Your task to perform on an android device: allow notifications from all sites in the chrome app Image 0: 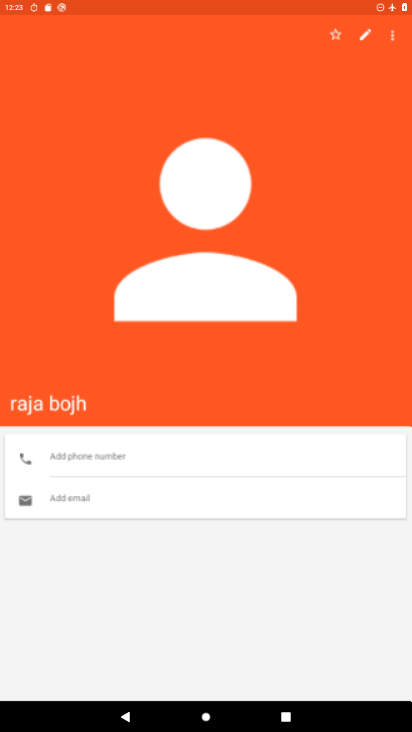
Step 0: drag from (235, 634) to (221, 111)
Your task to perform on an android device: allow notifications from all sites in the chrome app Image 1: 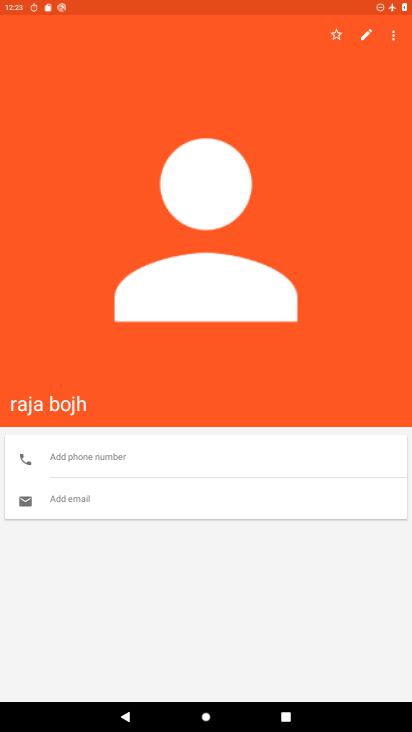
Step 1: press home button
Your task to perform on an android device: allow notifications from all sites in the chrome app Image 2: 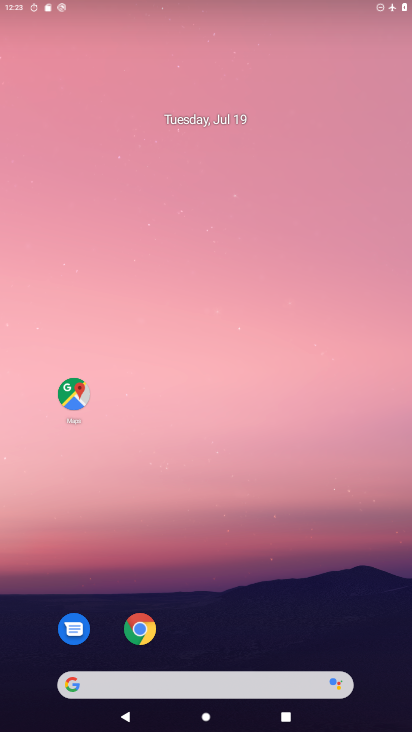
Step 2: drag from (244, 455) to (250, 111)
Your task to perform on an android device: allow notifications from all sites in the chrome app Image 3: 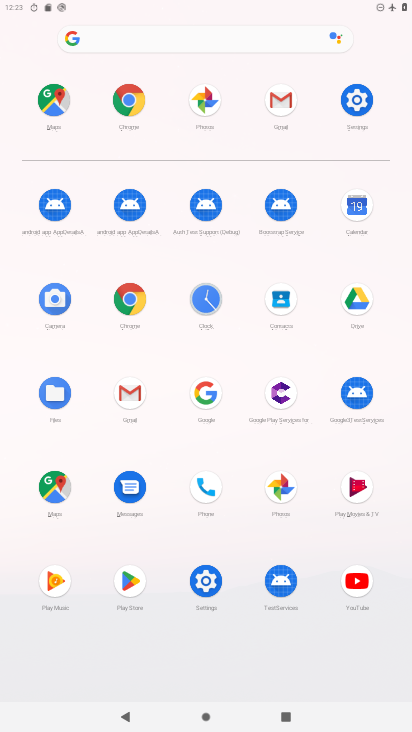
Step 3: click (127, 101)
Your task to perform on an android device: allow notifications from all sites in the chrome app Image 4: 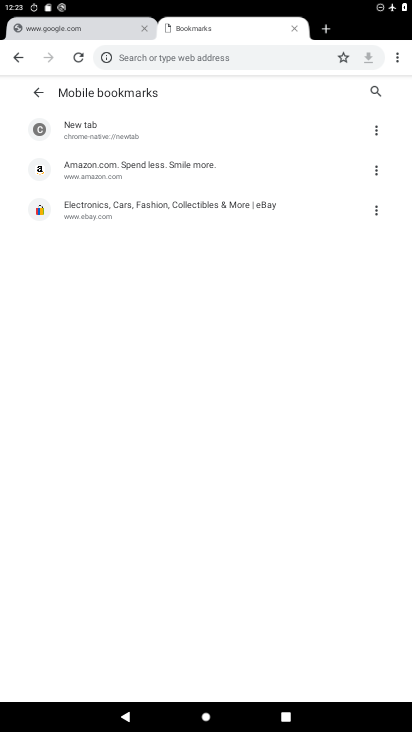
Step 4: drag from (396, 57) to (288, 299)
Your task to perform on an android device: allow notifications from all sites in the chrome app Image 5: 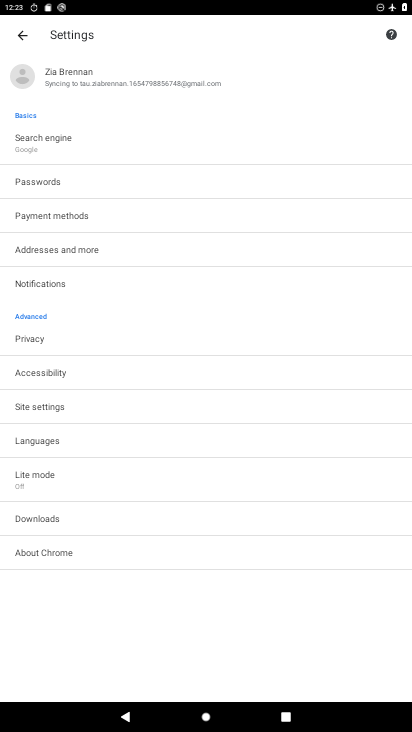
Step 5: click (50, 291)
Your task to perform on an android device: allow notifications from all sites in the chrome app Image 6: 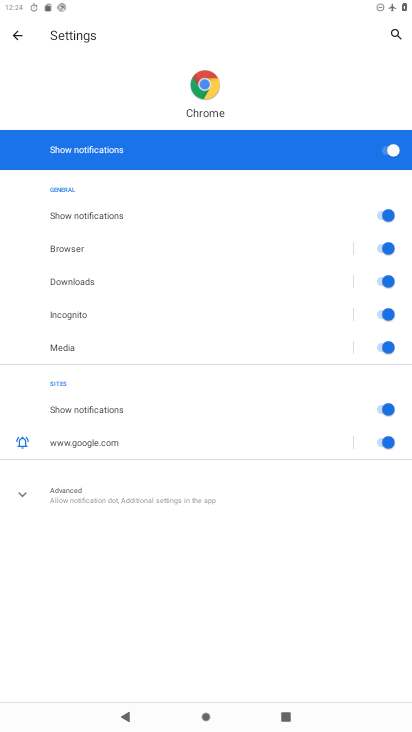
Step 6: task complete